Your task to perform on an android device: Open ESPN.com Image 0: 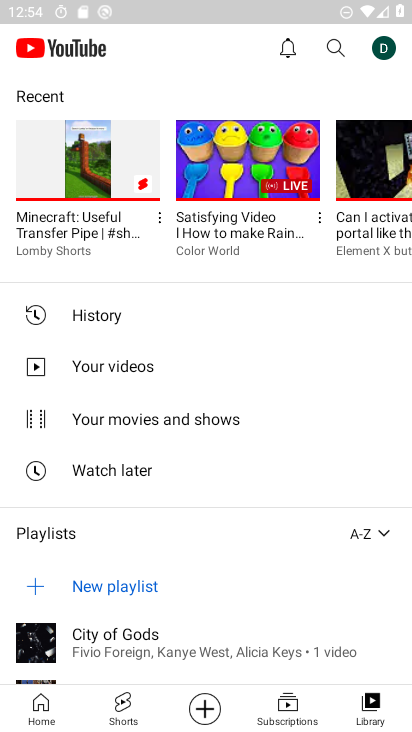
Step 0: press home button
Your task to perform on an android device: Open ESPN.com Image 1: 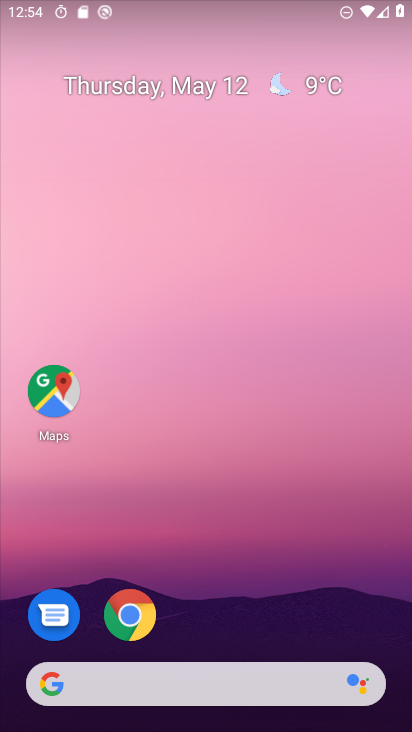
Step 1: click (127, 612)
Your task to perform on an android device: Open ESPN.com Image 2: 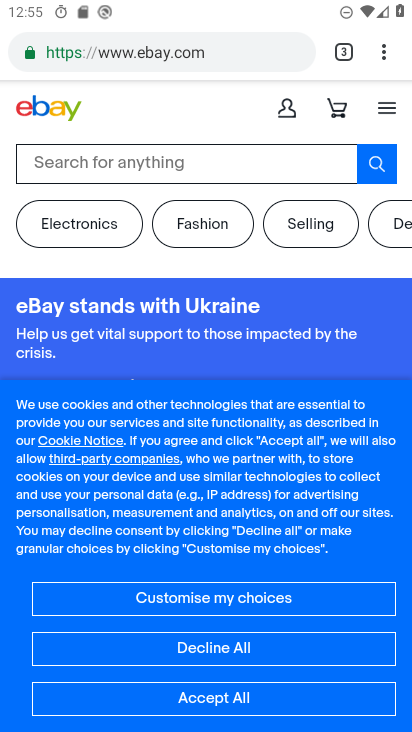
Step 2: click (217, 40)
Your task to perform on an android device: Open ESPN.com Image 3: 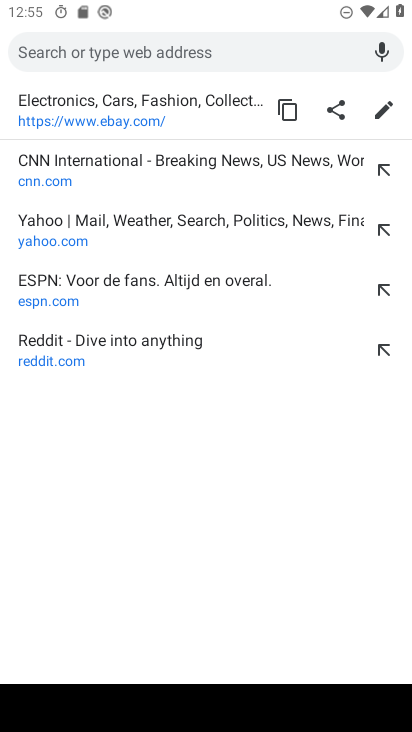
Step 3: type "espn.com"
Your task to perform on an android device: Open ESPN.com Image 4: 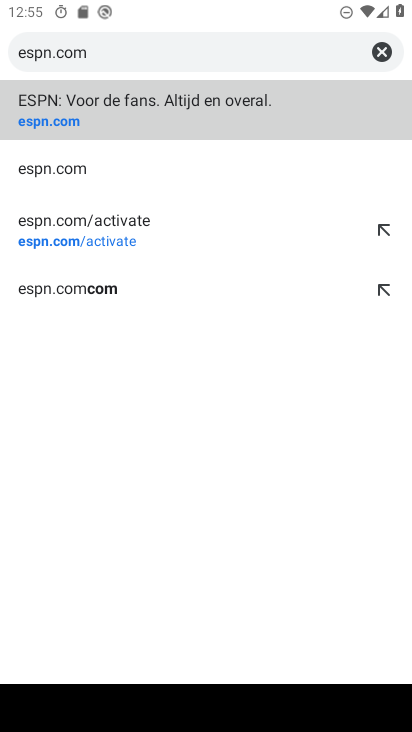
Step 4: click (79, 114)
Your task to perform on an android device: Open ESPN.com Image 5: 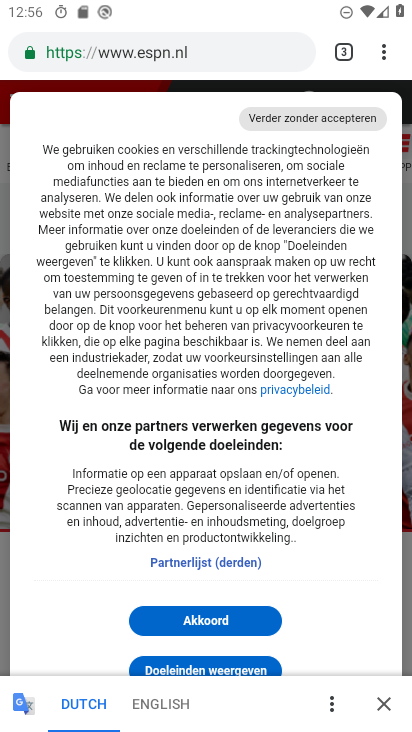
Step 5: task complete